Your task to perform on an android device: add a contact Image 0: 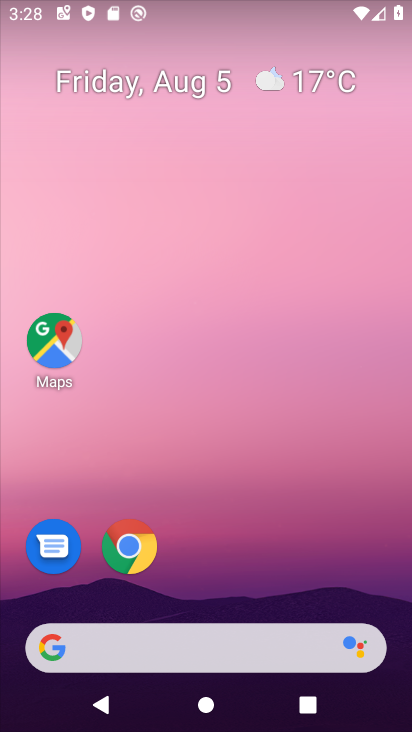
Step 0: press home button
Your task to perform on an android device: add a contact Image 1: 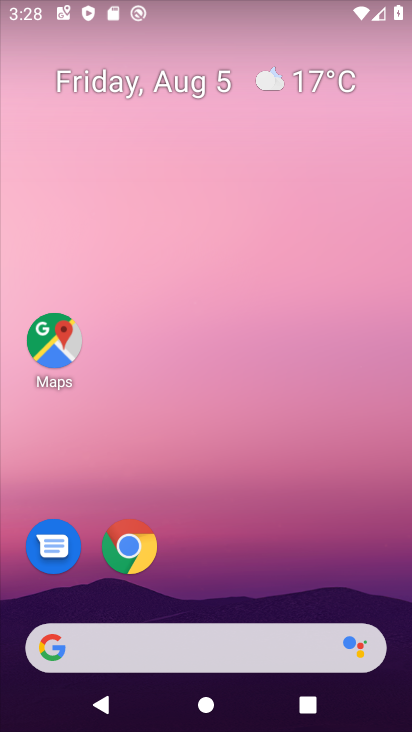
Step 1: drag from (322, 593) to (327, 194)
Your task to perform on an android device: add a contact Image 2: 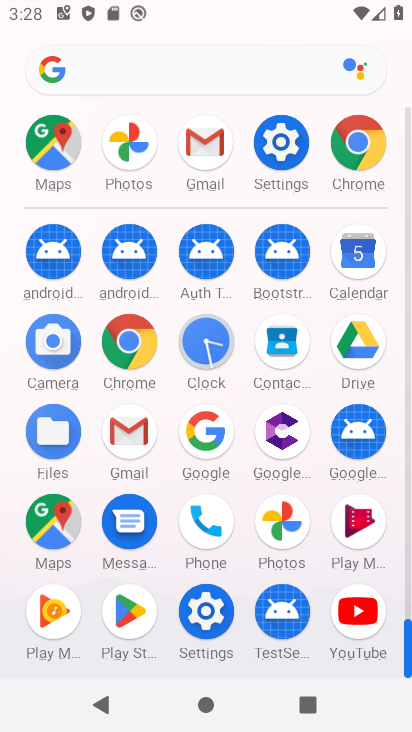
Step 2: click (275, 352)
Your task to perform on an android device: add a contact Image 3: 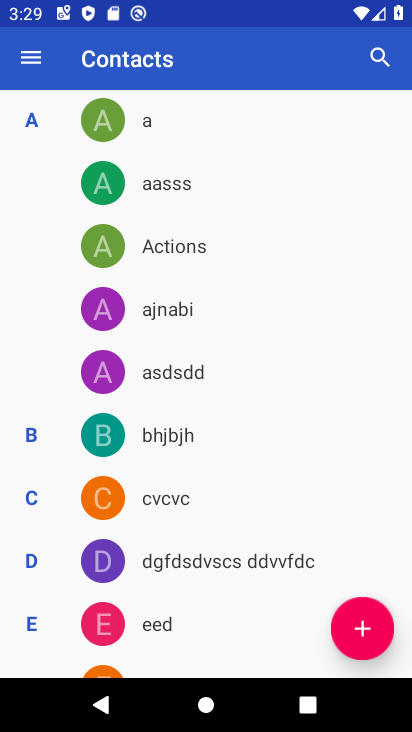
Step 3: click (374, 621)
Your task to perform on an android device: add a contact Image 4: 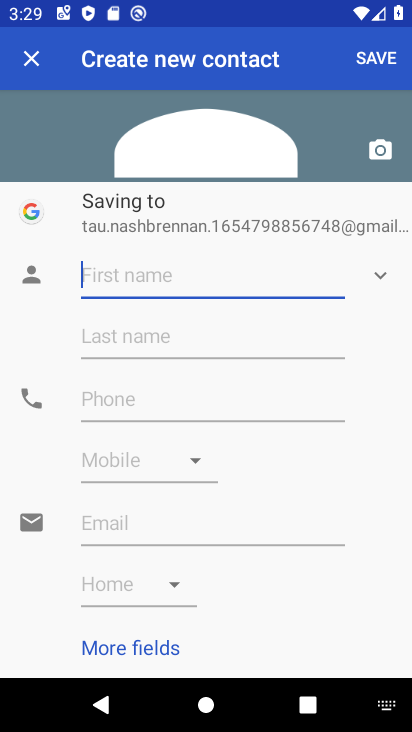
Step 4: click (190, 282)
Your task to perform on an android device: add a contact Image 5: 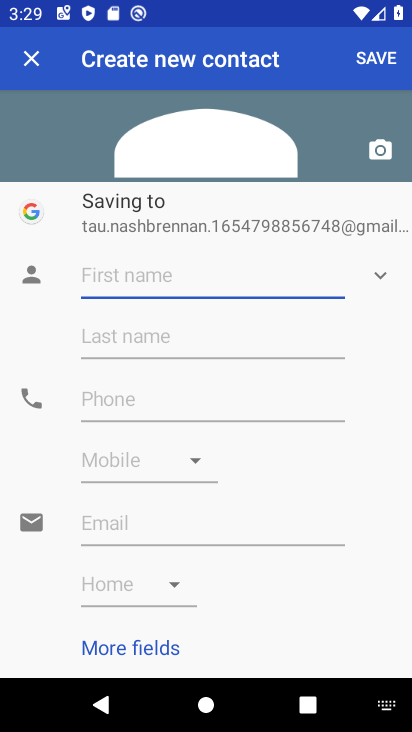
Step 5: type "fav"
Your task to perform on an android device: add a contact Image 6: 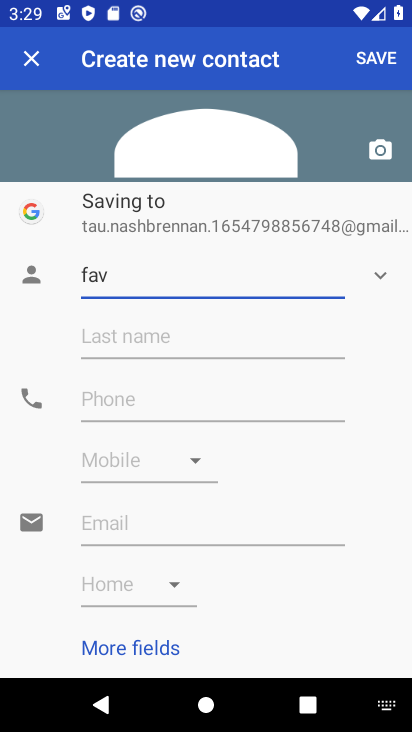
Step 6: click (274, 398)
Your task to perform on an android device: add a contact Image 7: 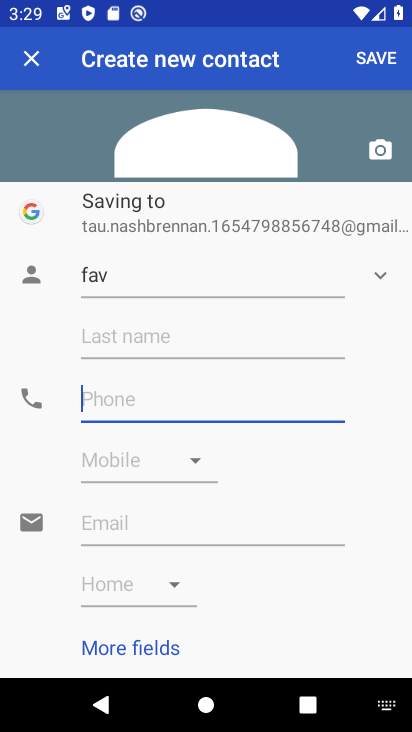
Step 7: type "1q23455667788"
Your task to perform on an android device: add a contact Image 8: 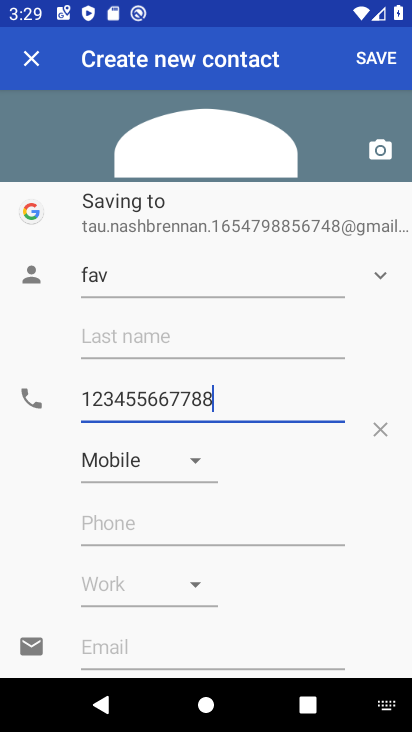
Step 8: click (383, 54)
Your task to perform on an android device: add a contact Image 9: 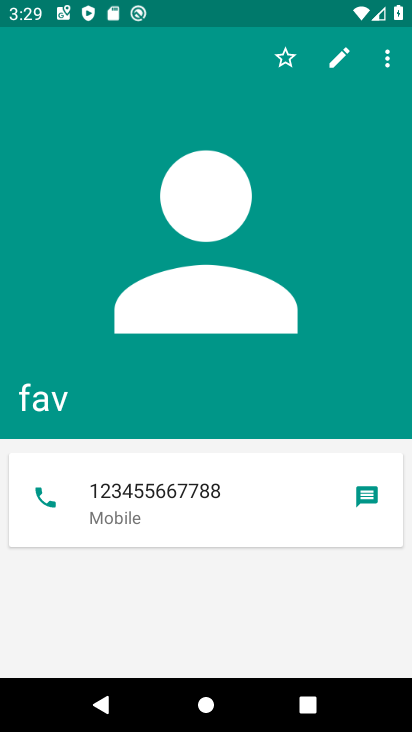
Step 9: task complete